Your task to perform on an android device: set an alarm Image 0: 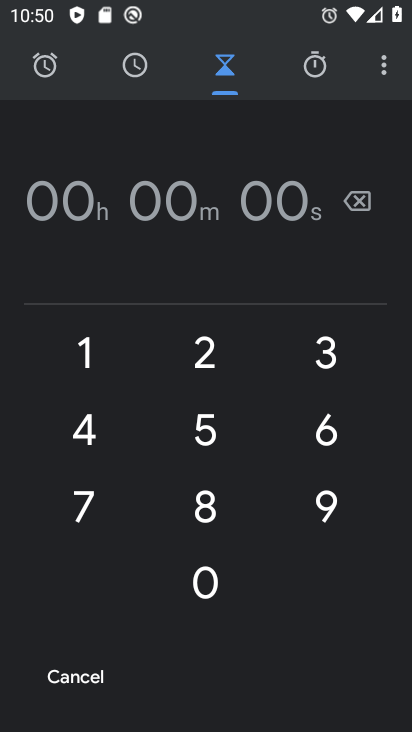
Step 0: press home button
Your task to perform on an android device: set an alarm Image 1: 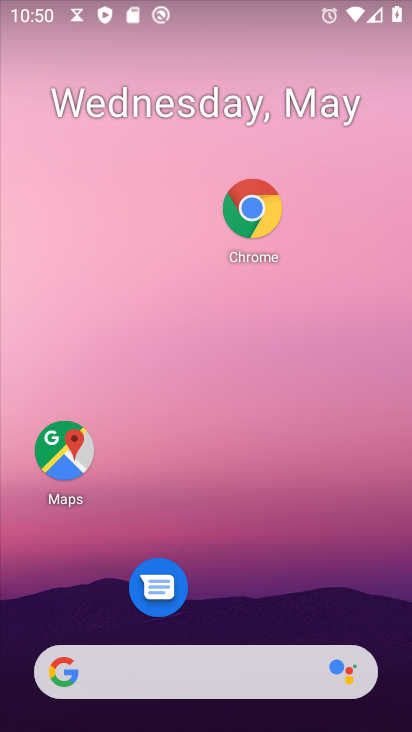
Step 1: drag from (233, 572) to (238, 96)
Your task to perform on an android device: set an alarm Image 2: 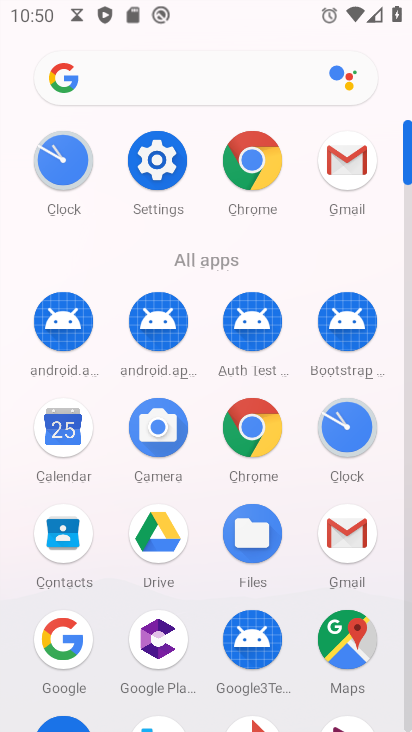
Step 2: click (38, 154)
Your task to perform on an android device: set an alarm Image 3: 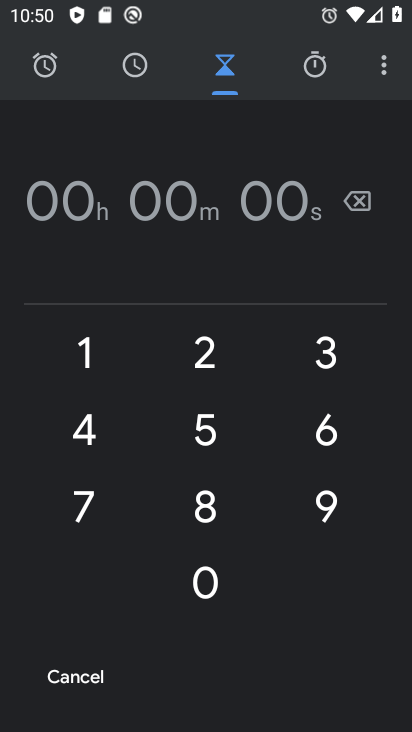
Step 3: click (58, 62)
Your task to perform on an android device: set an alarm Image 4: 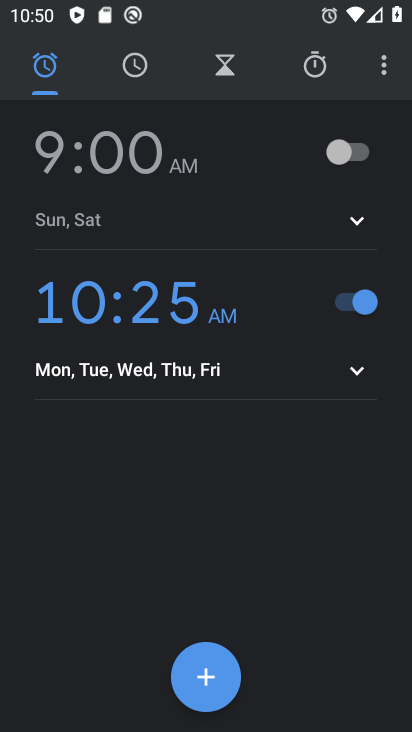
Step 4: click (364, 149)
Your task to perform on an android device: set an alarm Image 5: 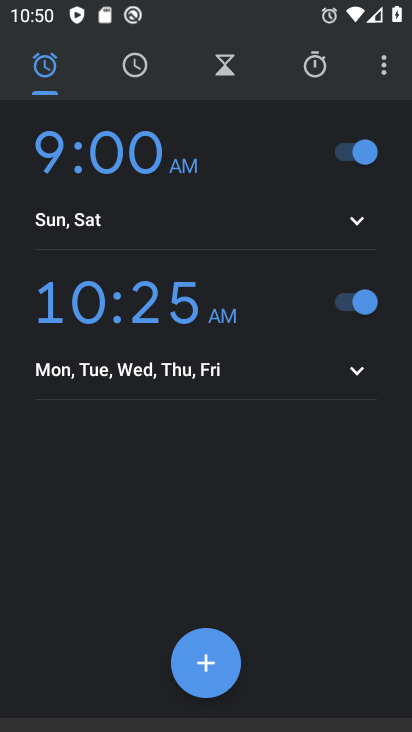
Step 5: task complete